Your task to perform on an android device: See recent photos Image 0: 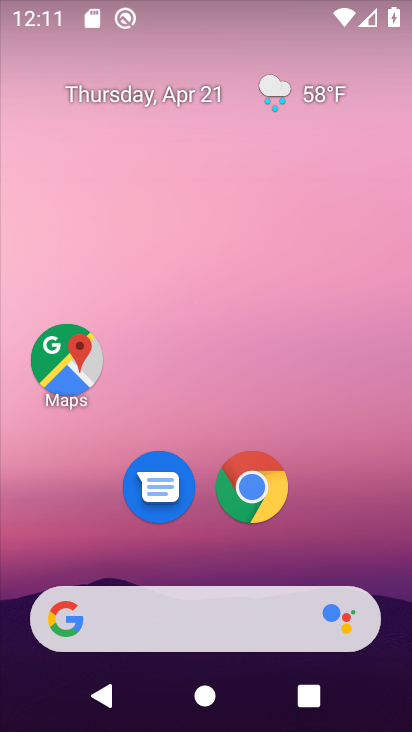
Step 0: drag from (266, 644) to (267, 117)
Your task to perform on an android device: See recent photos Image 1: 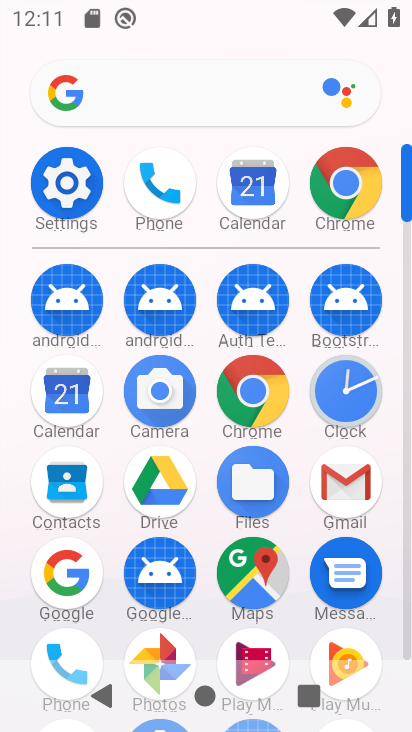
Step 1: drag from (202, 516) to (227, 298)
Your task to perform on an android device: See recent photos Image 2: 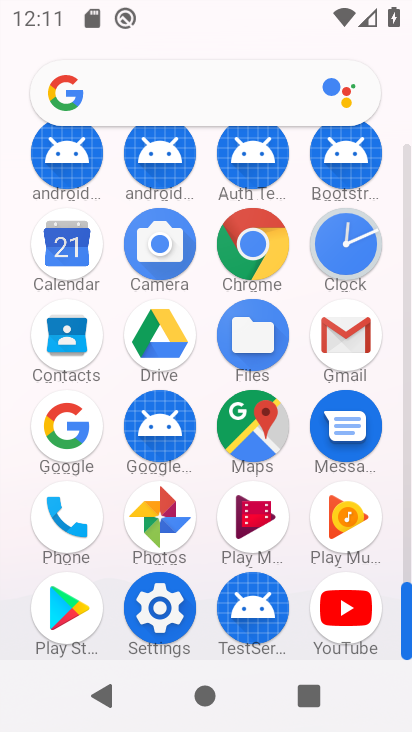
Step 2: click (167, 507)
Your task to perform on an android device: See recent photos Image 3: 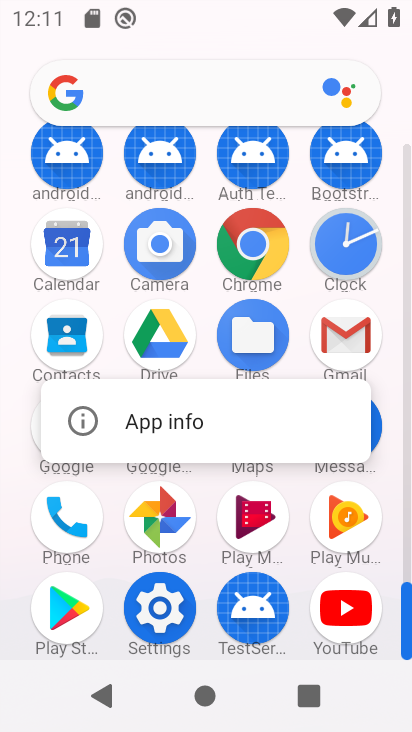
Step 3: click (162, 496)
Your task to perform on an android device: See recent photos Image 4: 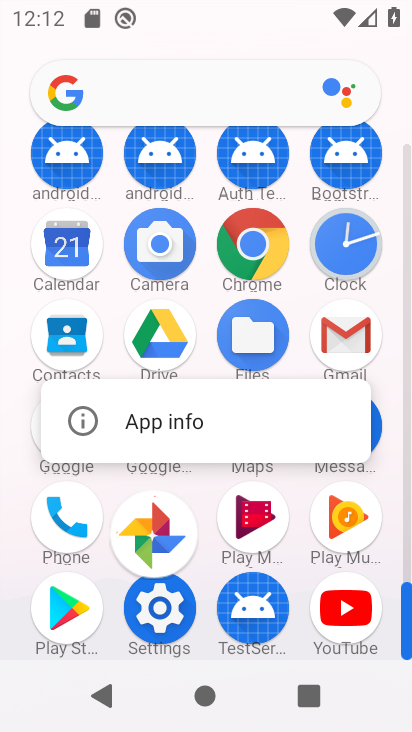
Step 4: click (157, 513)
Your task to perform on an android device: See recent photos Image 5: 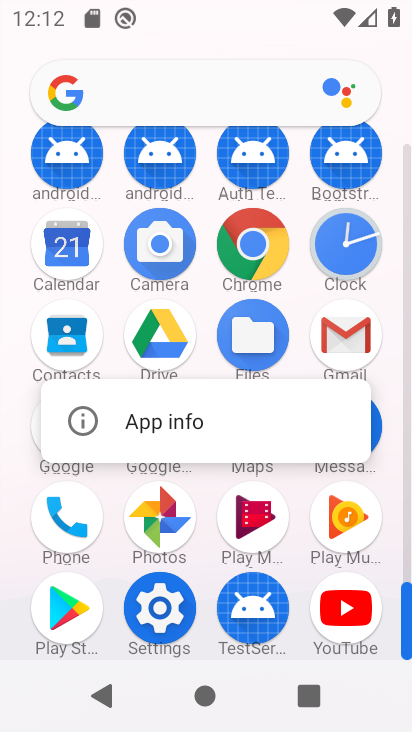
Step 5: click (146, 520)
Your task to perform on an android device: See recent photos Image 6: 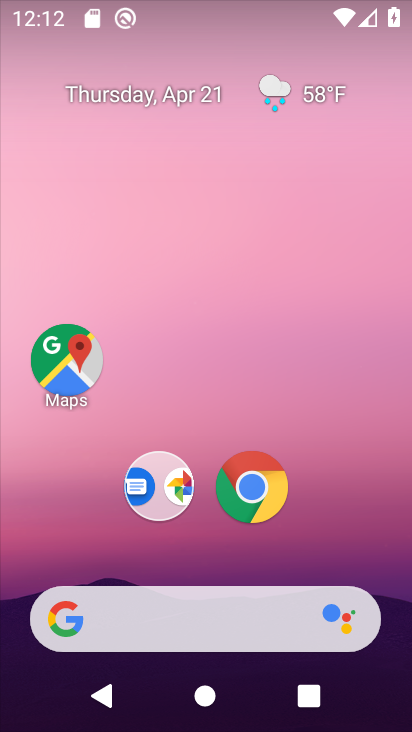
Step 6: drag from (240, 646) to (263, 124)
Your task to perform on an android device: See recent photos Image 7: 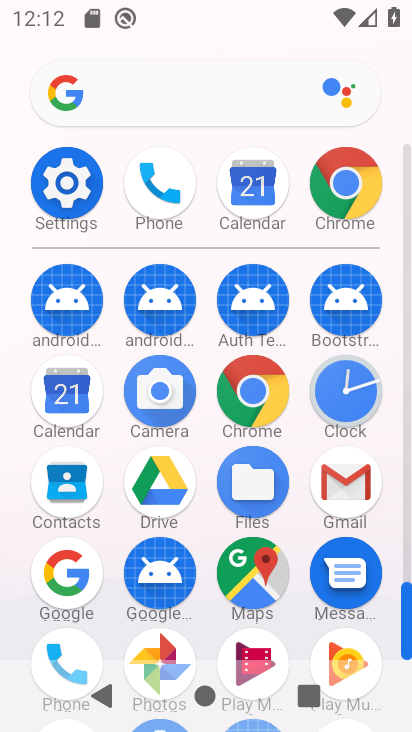
Step 7: drag from (207, 439) to (252, 222)
Your task to perform on an android device: See recent photos Image 8: 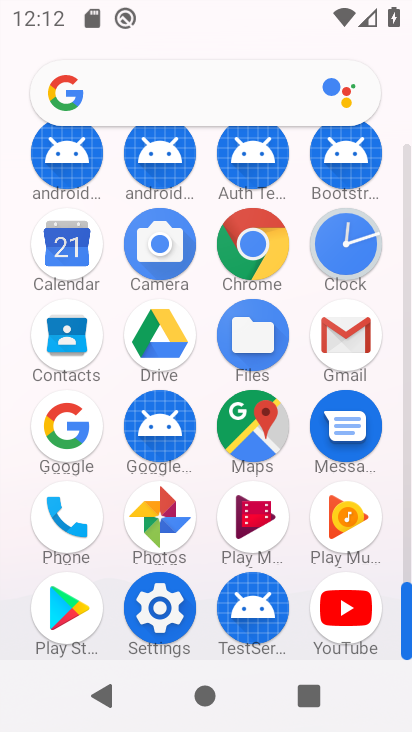
Step 8: click (164, 500)
Your task to perform on an android device: See recent photos Image 9: 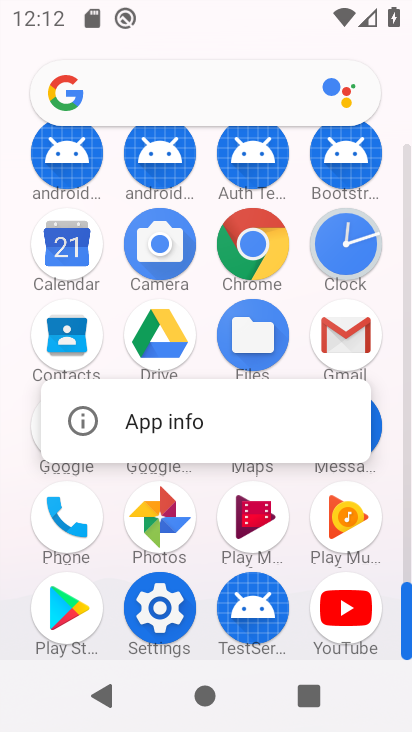
Step 9: click (157, 516)
Your task to perform on an android device: See recent photos Image 10: 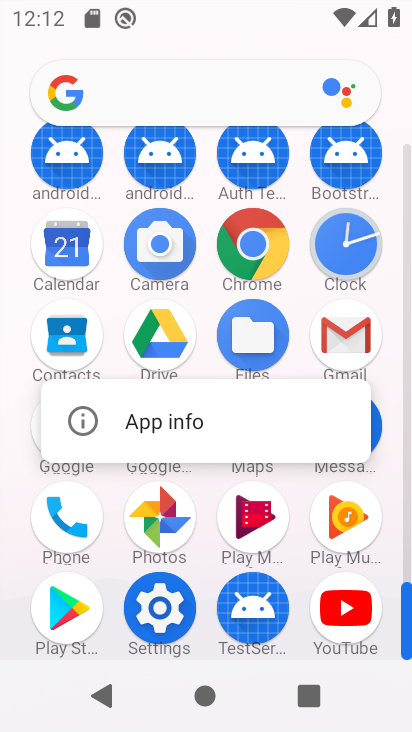
Step 10: click (157, 516)
Your task to perform on an android device: See recent photos Image 11: 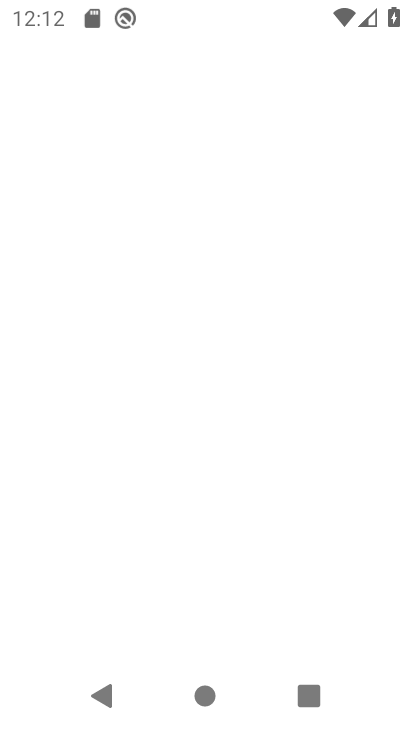
Step 11: click (111, 421)
Your task to perform on an android device: See recent photos Image 12: 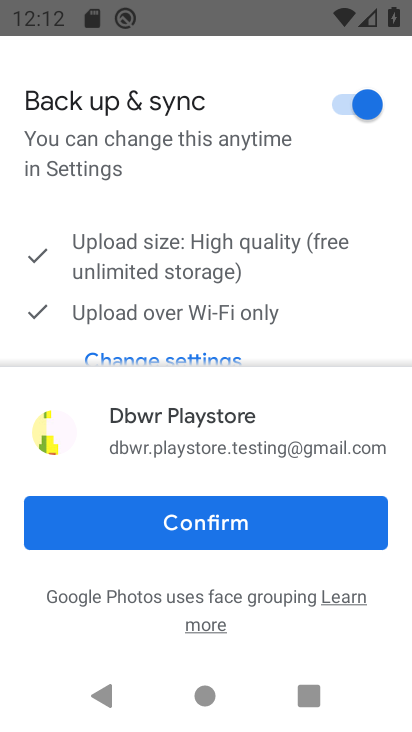
Step 12: click (161, 535)
Your task to perform on an android device: See recent photos Image 13: 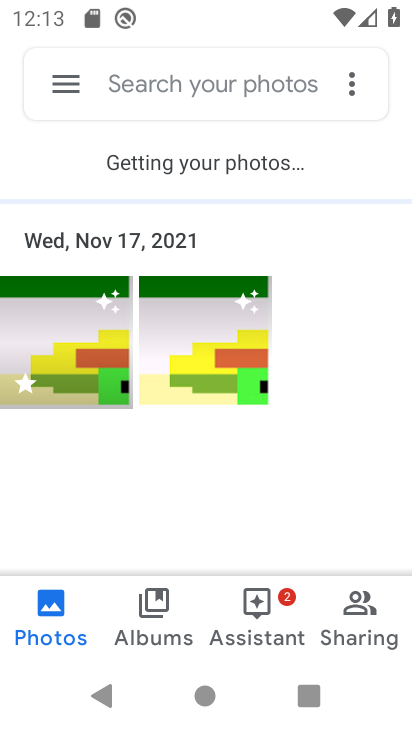
Step 13: task complete